Your task to perform on an android device: open chrome and create a bookmark for the current page Image 0: 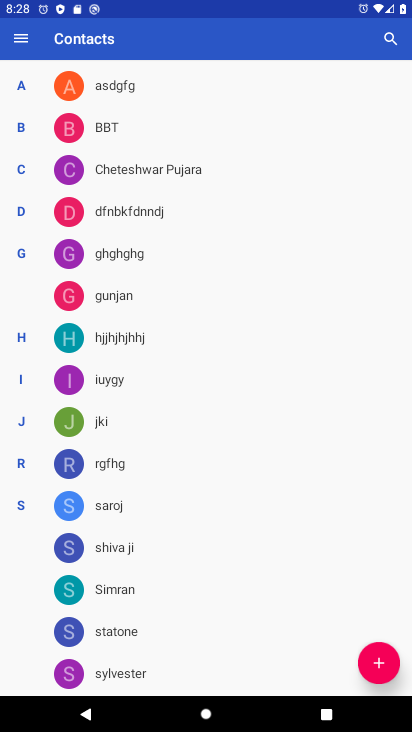
Step 0: press home button
Your task to perform on an android device: open chrome and create a bookmark for the current page Image 1: 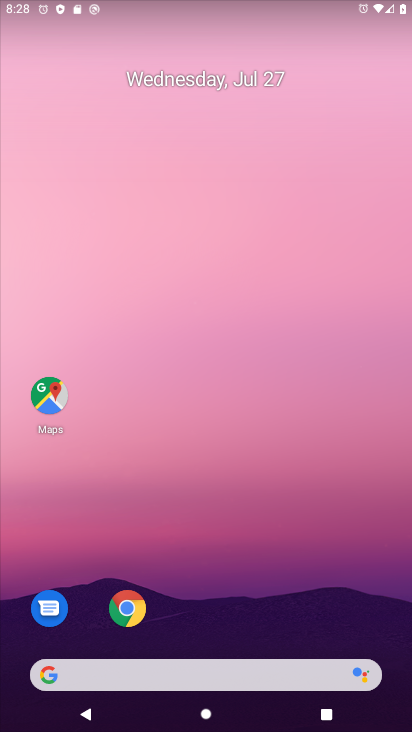
Step 1: click (118, 615)
Your task to perform on an android device: open chrome and create a bookmark for the current page Image 2: 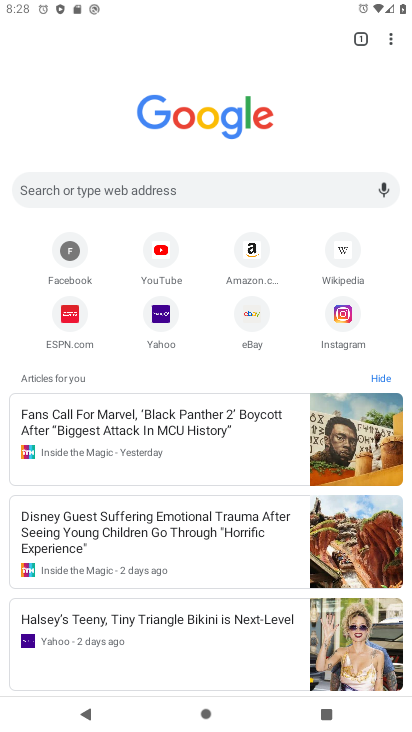
Step 2: click (390, 33)
Your task to perform on an android device: open chrome and create a bookmark for the current page Image 3: 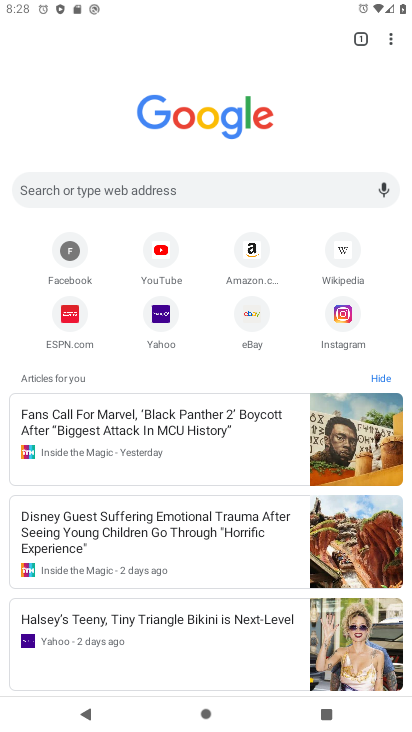
Step 3: task complete